Your task to perform on an android device: refresh tabs in the chrome app Image 0: 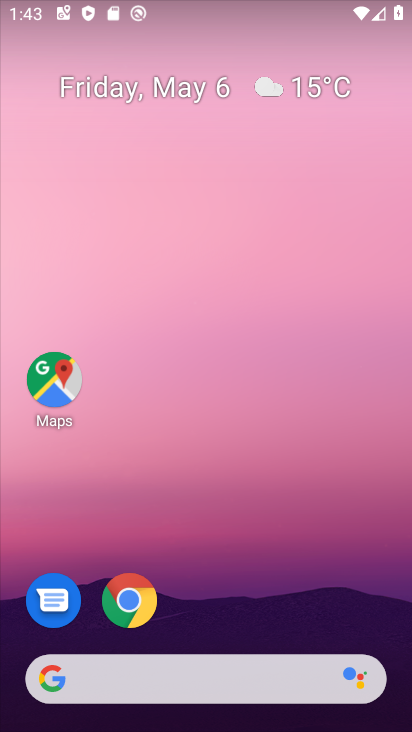
Step 0: click (133, 598)
Your task to perform on an android device: refresh tabs in the chrome app Image 1: 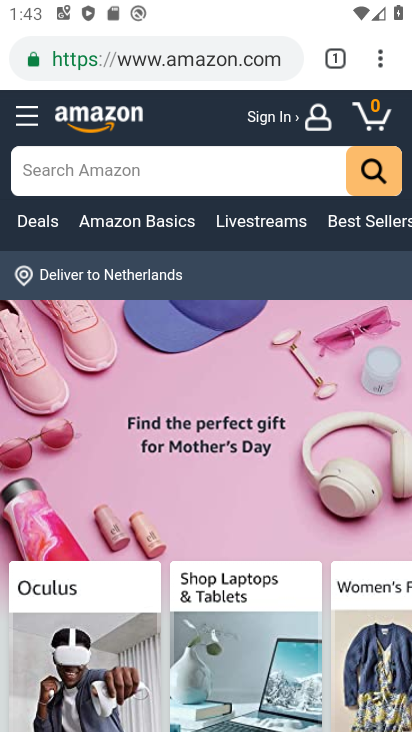
Step 1: click (382, 60)
Your task to perform on an android device: refresh tabs in the chrome app Image 2: 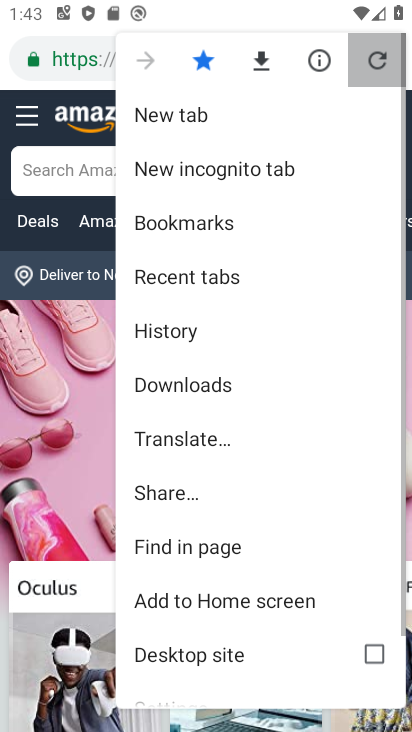
Step 2: click (384, 60)
Your task to perform on an android device: refresh tabs in the chrome app Image 3: 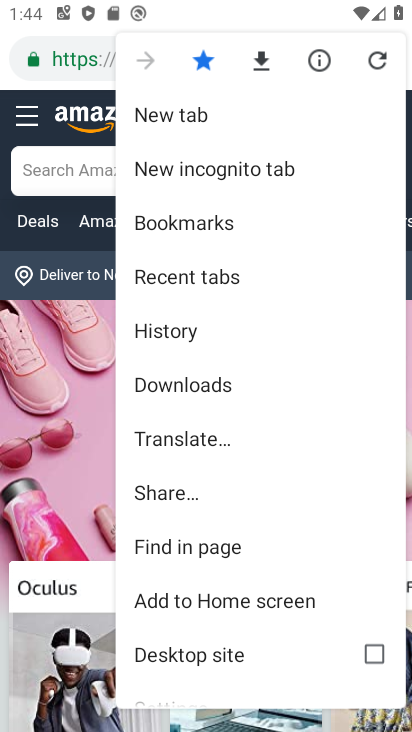
Step 3: task complete